Your task to perform on an android device: Open Chrome and go to the settings page Image 0: 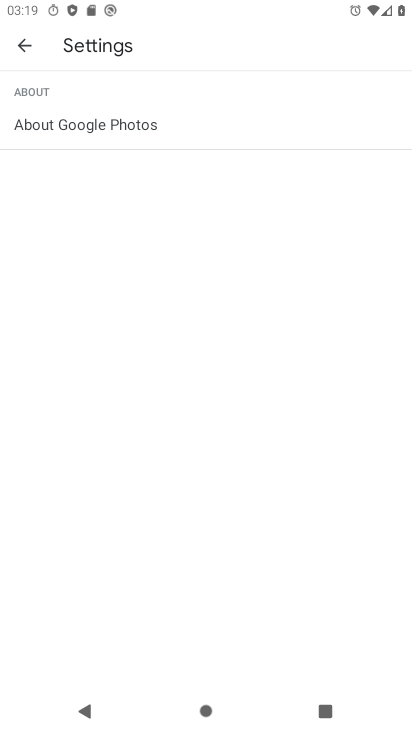
Step 0: press back button
Your task to perform on an android device: Open Chrome and go to the settings page Image 1: 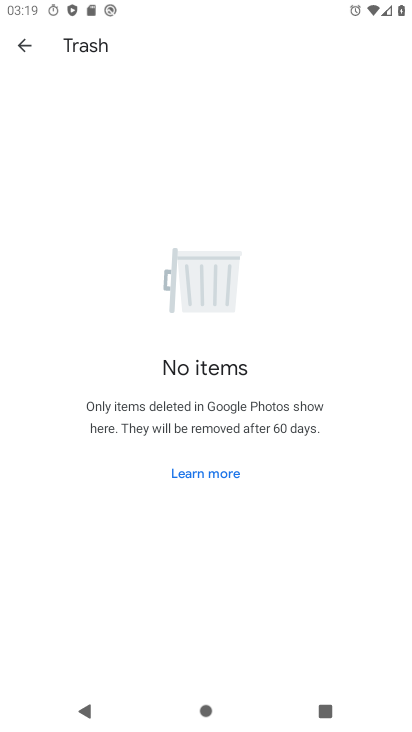
Step 1: press back button
Your task to perform on an android device: Open Chrome and go to the settings page Image 2: 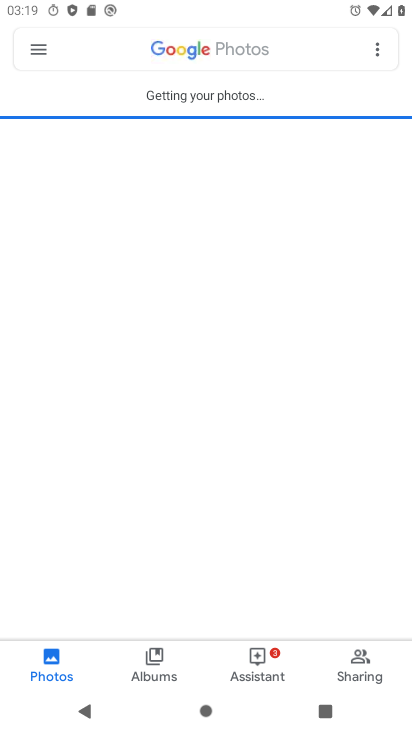
Step 2: press back button
Your task to perform on an android device: Open Chrome and go to the settings page Image 3: 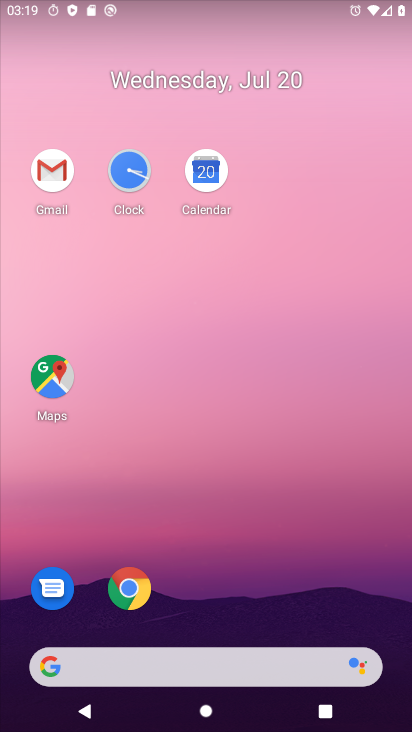
Step 3: click (129, 592)
Your task to perform on an android device: Open Chrome and go to the settings page Image 4: 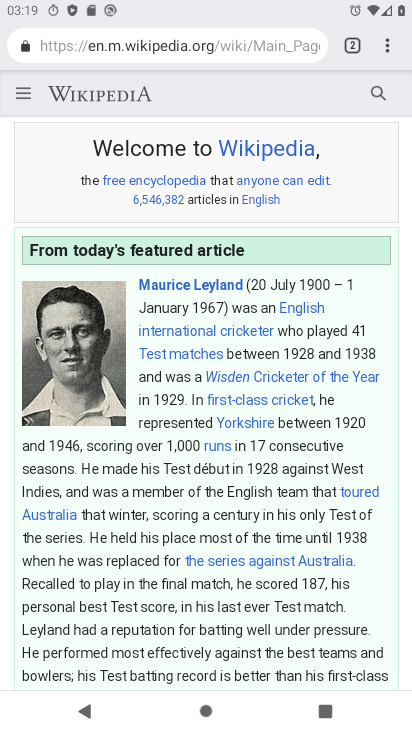
Step 4: click (387, 42)
Your task to perform on an android device: Open Chrome and go to the settings page Image 5: 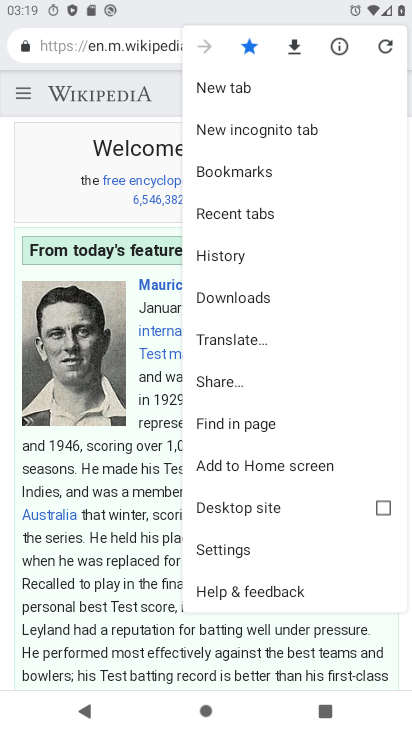
Step 5: click (225, 551)
Your task to perform on an android device: Open Chrome and go to the settings page Image 6: 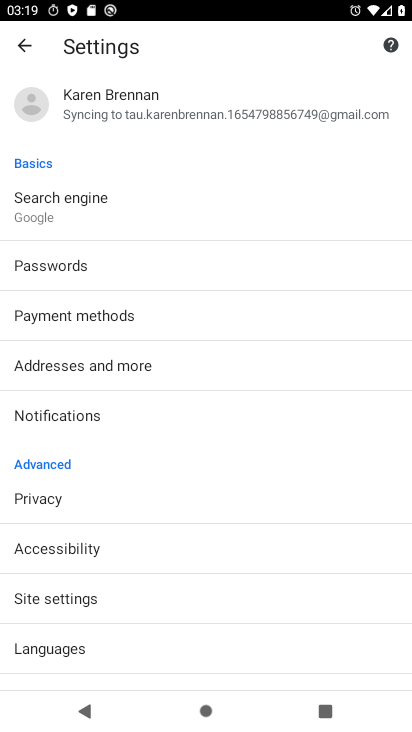
Step 6: task complete